Your task to perform on an android device: Open my contact list Image 0: 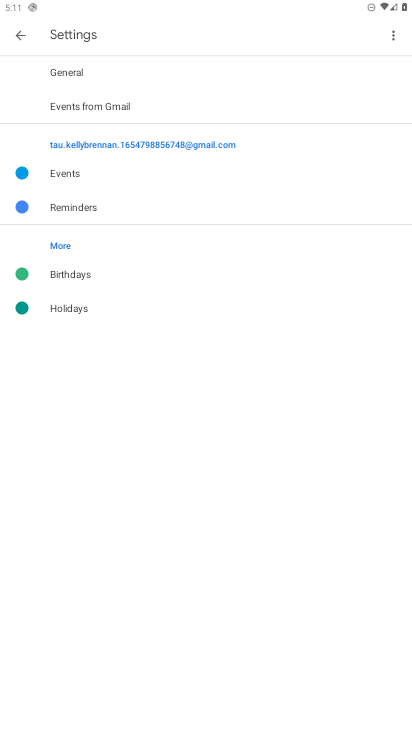
Step 0: press home button
Your task to perform on an android device: Open my contact list Image 1: 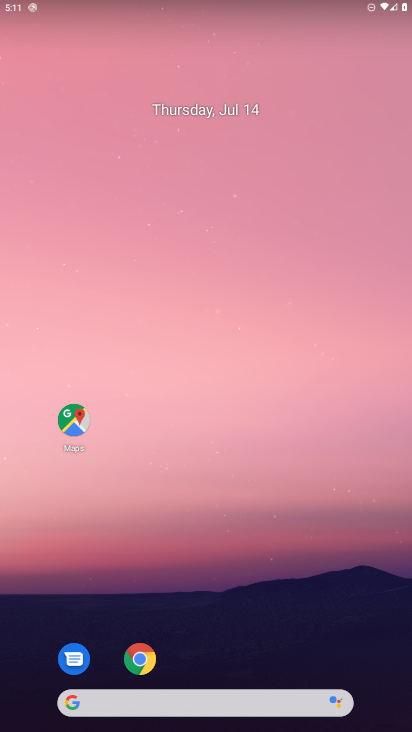
Step 1: drag from (206, 651) to (231, 19)
Your task to perform on an android device: Open my contact list Image 2: 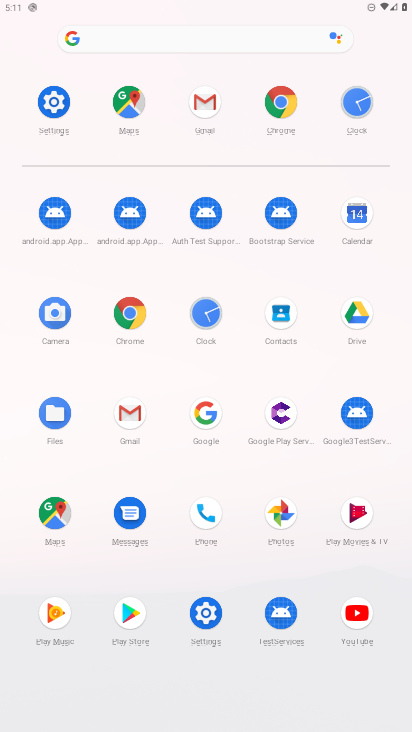
Step 2: click (280, 308)
Your task to perform on an android device: Open my contact list Image 3: 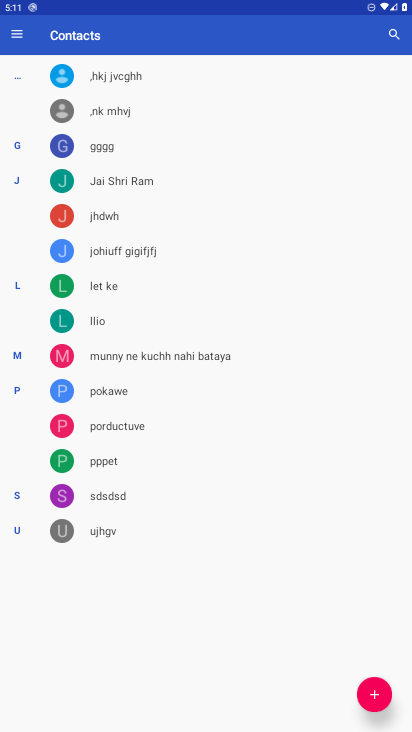
Step 3: task complete